Your task to perform on an android device: Open Google Maps Image 0: 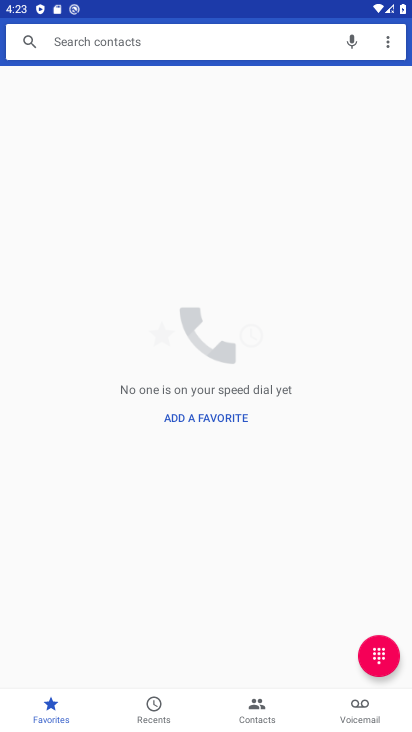
Step 0: press home button
Your task to perform on an android device: Open Google Maps Image 1: 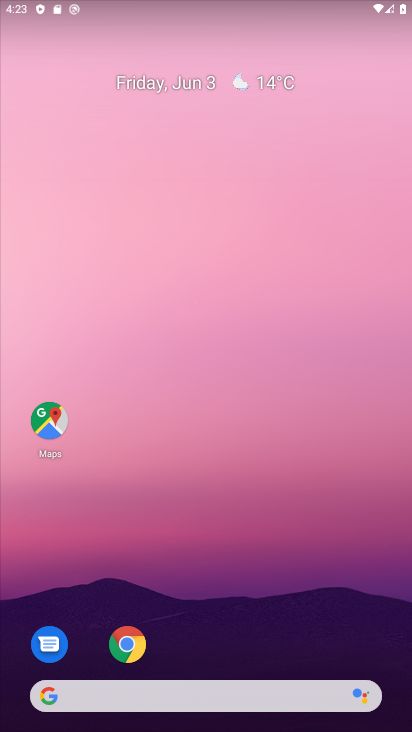
Step 1: click (58, 428)
Your task to perform on an android device: Open Google Maps Image 2: 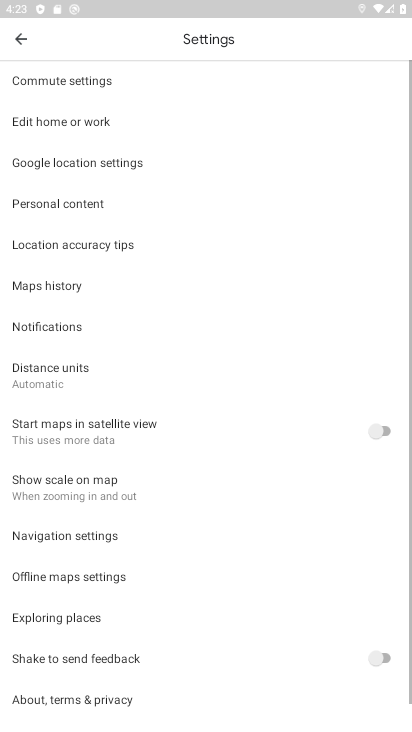
Step 2: click (19, 44)
Your task to perform on an android device: Open Google Maps Image 3: 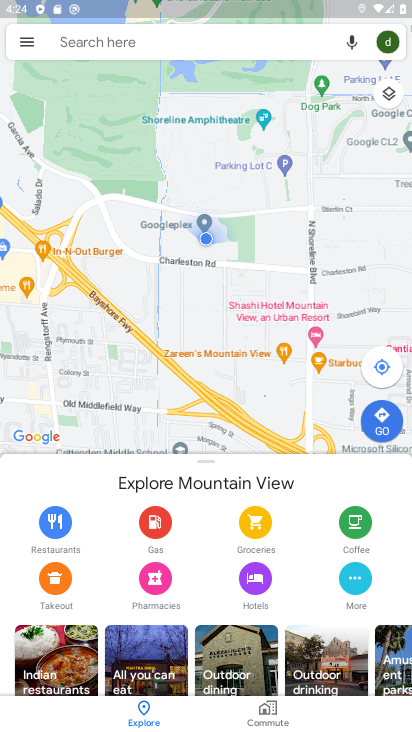
Step 3: task complete